Your task to perform on an android device: find photos in the google photos app Image 0: 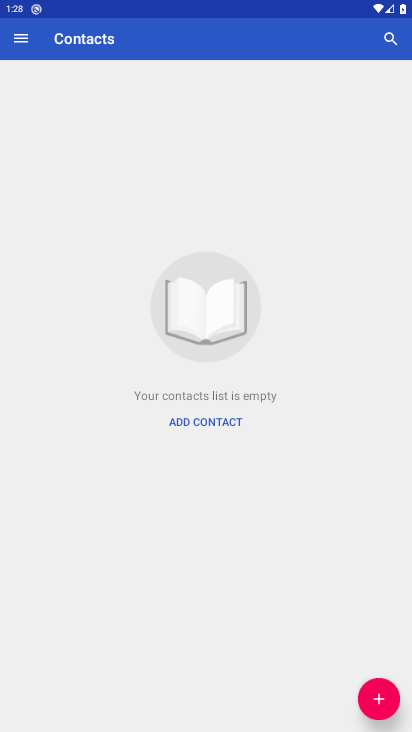
Step 0: press home button
Your task to perform on an android device: find photos in the google photos app Image 1: 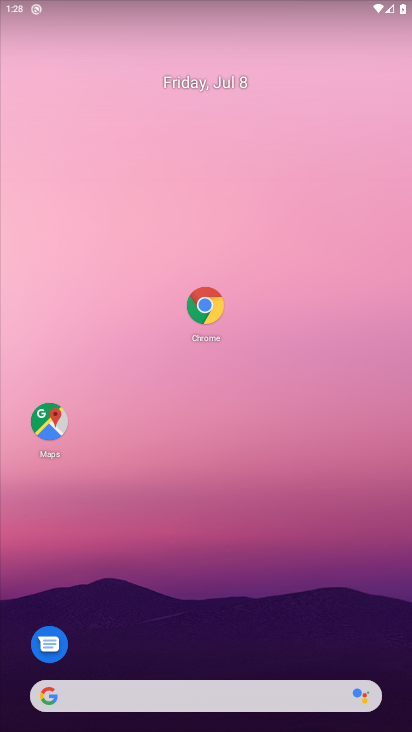
Step 1: drag from (195, 679) to (151, 349)
Your task to perform on an android device: find photos in the google photos app Image 2: 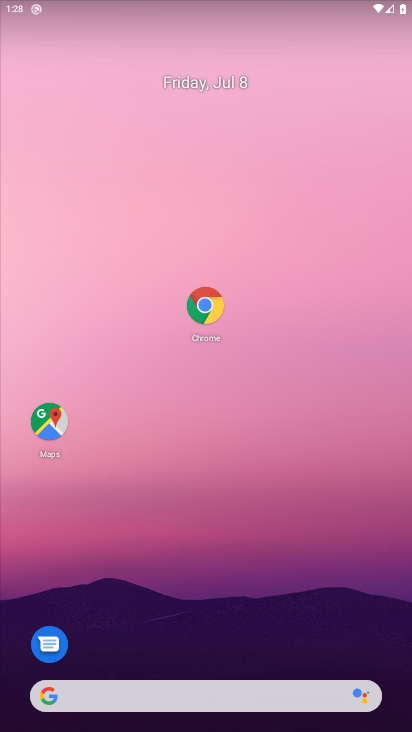
Step 2: drag from (192, 676) to (173, 312)
Your task to perform on an android device: find photos in the google photos app Image 3: 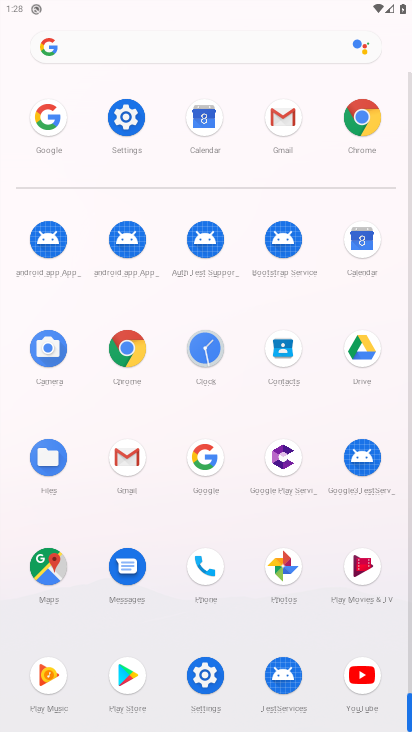
Step 3: click (287, 564)
Your task to perform on an android device: find photos in the google photos app Image 4: 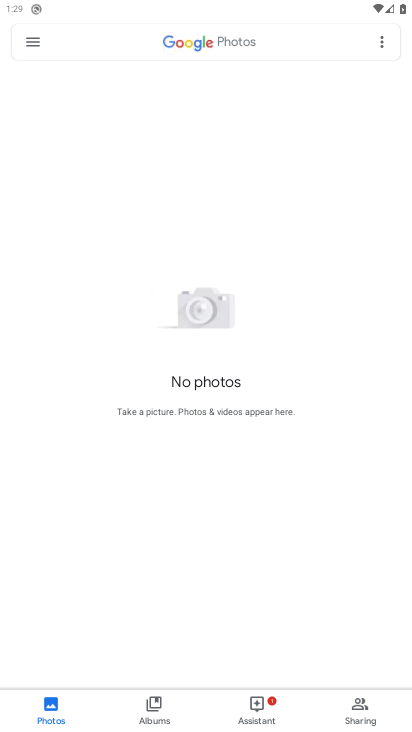
Step 4: task complete